Your task to perform on an android device: Open Yahoo.com Image 0: 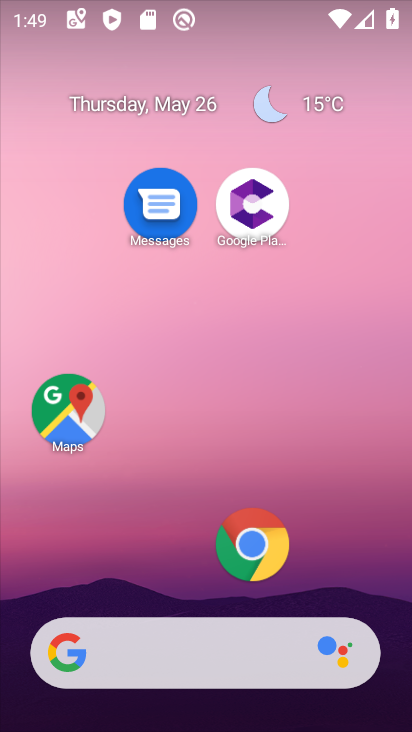
Step 0: click (245, 543)
Your task to perform on an android device: Open Yahoo.com Image 1: 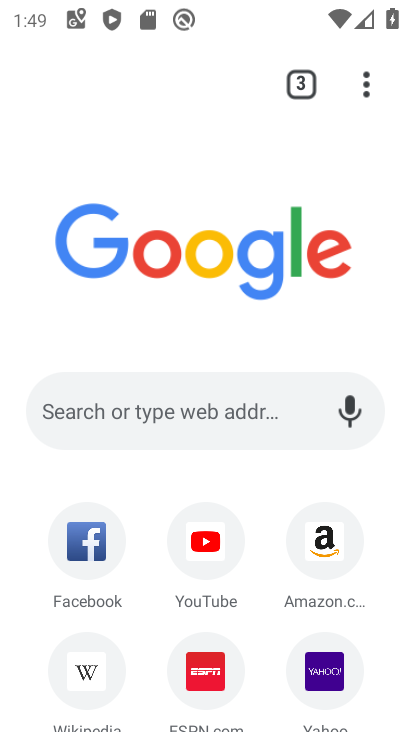
Step 1: click (299, 654)
Your task to perform on an android device: Open Yahoo.com Image 2: 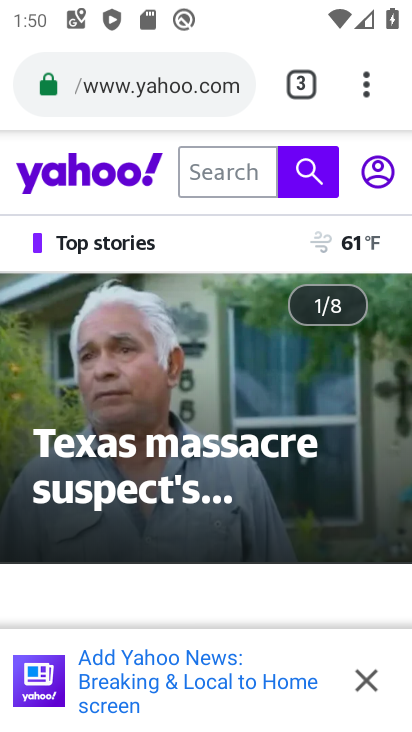
Step 2: task complete